Your task to perform on an android device: turn off priority inbox in the gmail app Image 0: 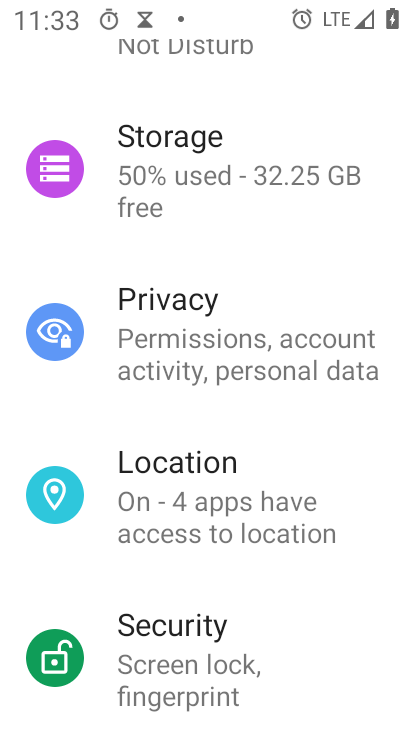
Step 0: press home button
Your task to perform on an android device: turn off priority inbox in the gmail app Image 1: 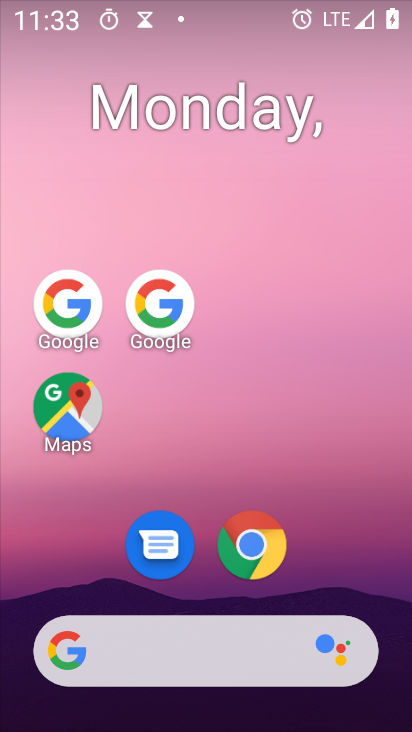
Step 1: drag from (206, 643) to (342, 106)
Your task to perform on an android device: turn off priority inbox in the gmail app Image 2: 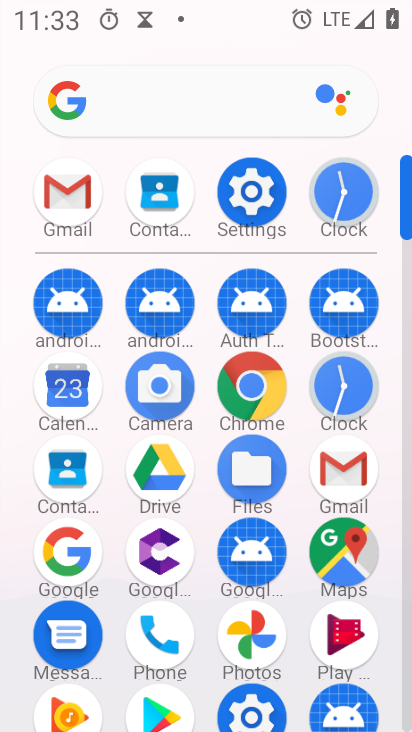
Step 2: click (74, 208)
Your task to perform on an android device: turn off priority inbox in the gmail app Image 3: 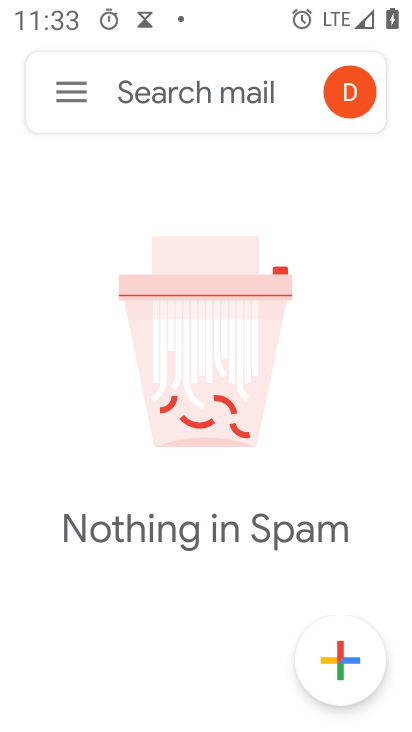
Step 3: click (75, 84)
Your task to perform on an android device: turn off priority inbox in the gmail app Image 4: 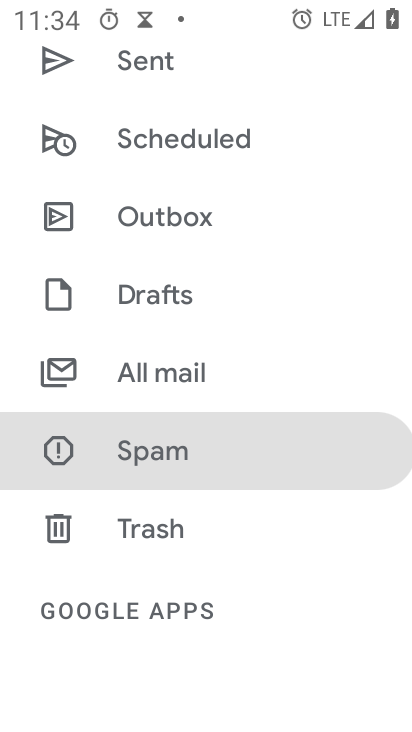
Step 4: drag from (224, 644) to (298, 232)
Your task to perform on an android device: turn off priority inbox in the gmail app Image 5: 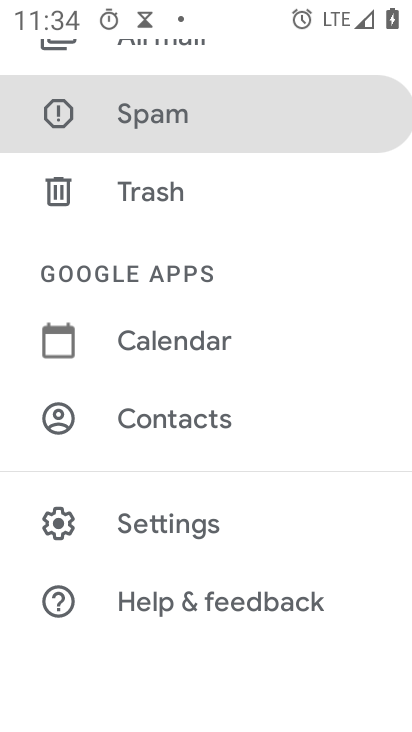
Step 5: click (199, 522)
Your task to perform on an android device: turn off priority inbox in the gmail app Image 6: 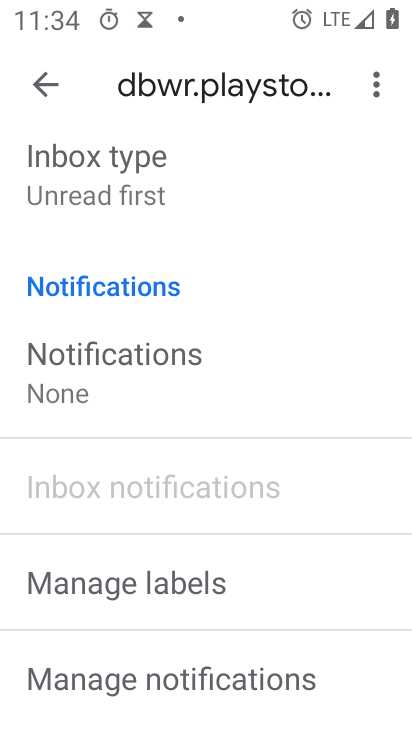
Step 6: drag from (190, 636) to (321, 175)
Your task to perform on an android device: turn off priority inbox in the gmail app Image 7: 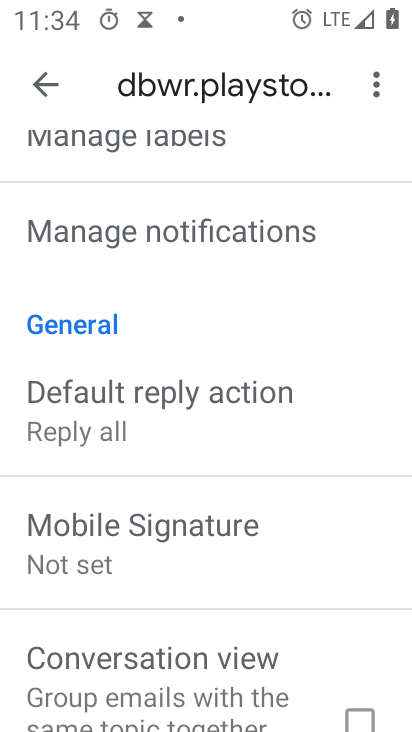
Step 7: drag from (294, 240) to (164, 659)
Your task to perform on an android device: turn off priority inbox in the gmail app Image 8: 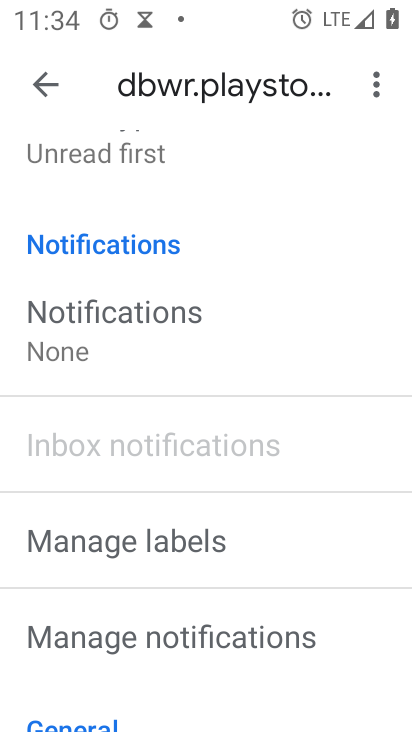
Step 8: drag from (270, 310) to (209, 579)
Your task to perform on an android device: turn off priority inbox in the gmail app Image 9: 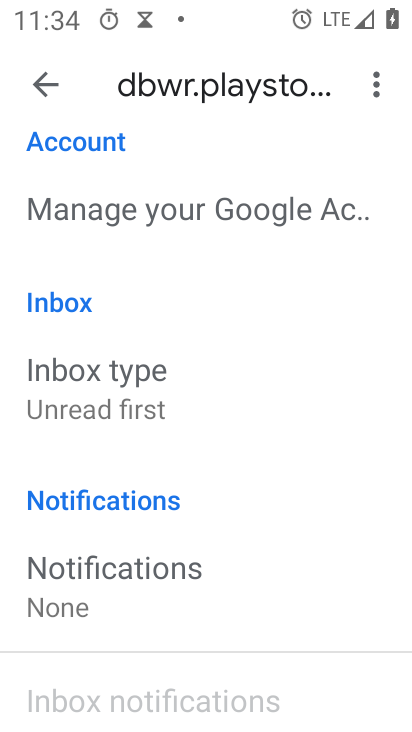
Step 9: drag from (277, 338) to (184, 617)
Your task to perform on an android device: turn off priority inbox in the gmail app Image 10: 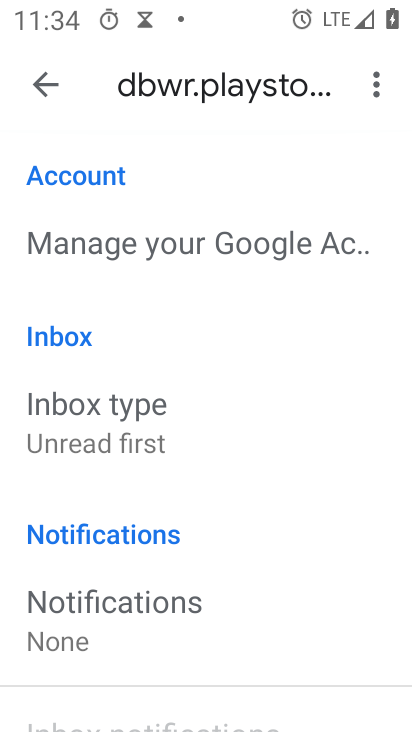
Step 10: click (131, 426)
Your task to perform on an android device: turn off priority inbox in the gmail app Image 11: 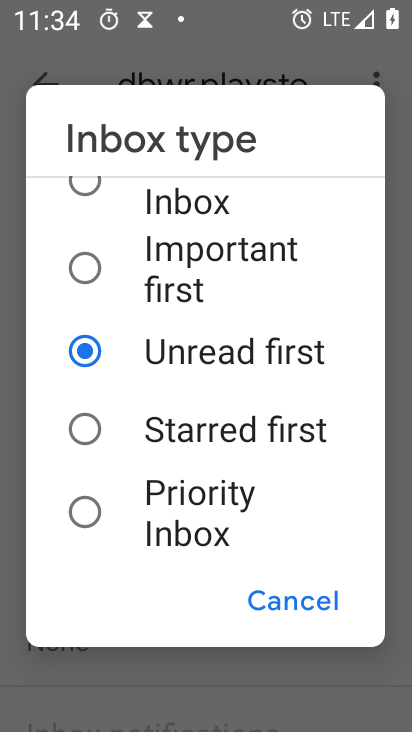
Step 11: task complete